Your task to perform on an android device: Open Amazon Image 0: 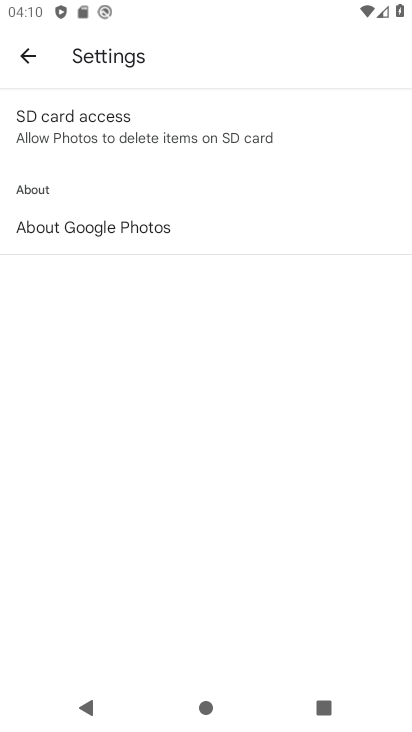
Step 0: press home button
Your task to perform on an android device: Open Amazon Image 1: 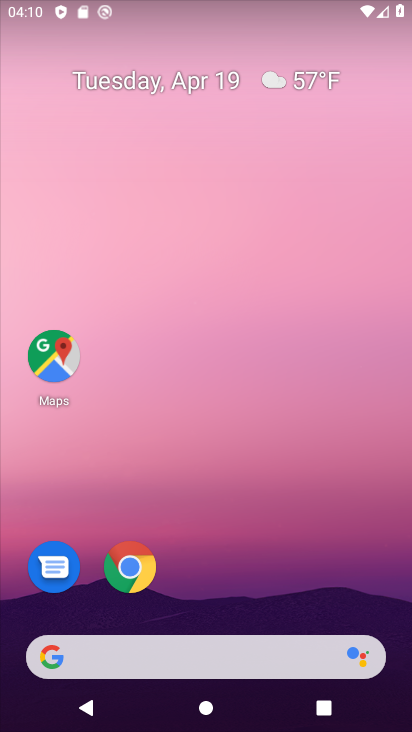
Step 1: drag from (311, 592) to (329, 234)
Your task to perform on an android device: Open Amazon Image 2: 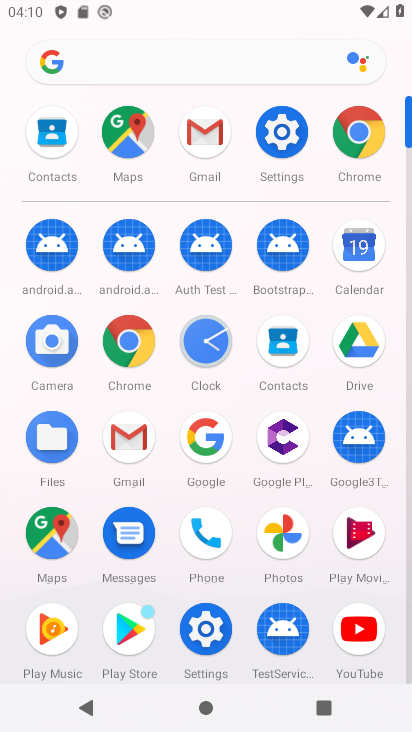
Step 2: click (131, 343)
Your task to perform on an android device: Open Amazon Image 3: 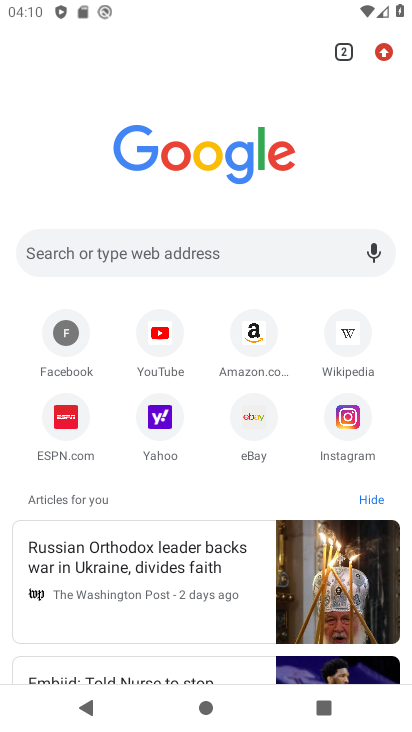
Step 3: click (244, 331)
Your task to perform on an android device: Open Amazon Image 4: 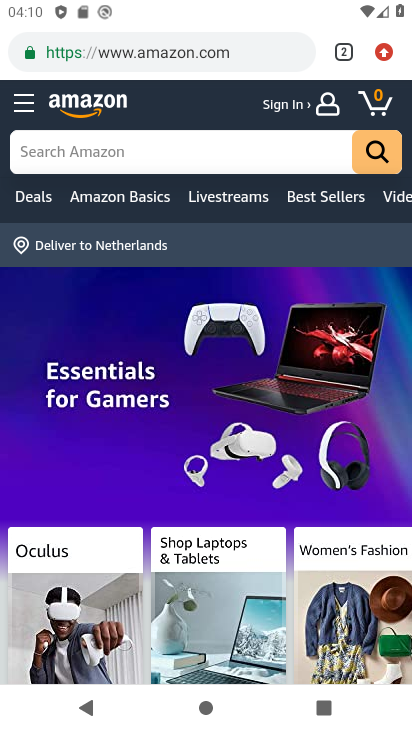
Step 4: task complete